Your task to perform on an android device: turn vacation reply on in the gmail app Image 0: 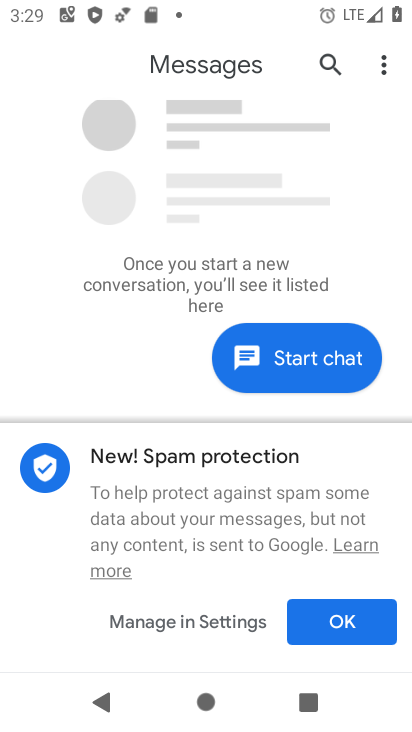
Step 0: press home button
Your task to perform on an android device: turn vacation reply on in the gmail app Image 1: 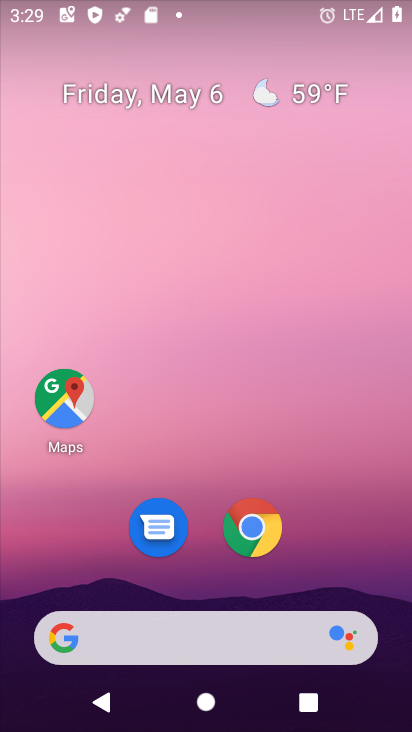
Step 1: drag from (345, 552) to (289, 73)
Your task to perform on an android device: turn vacation reply on in the gmail app Image 2: 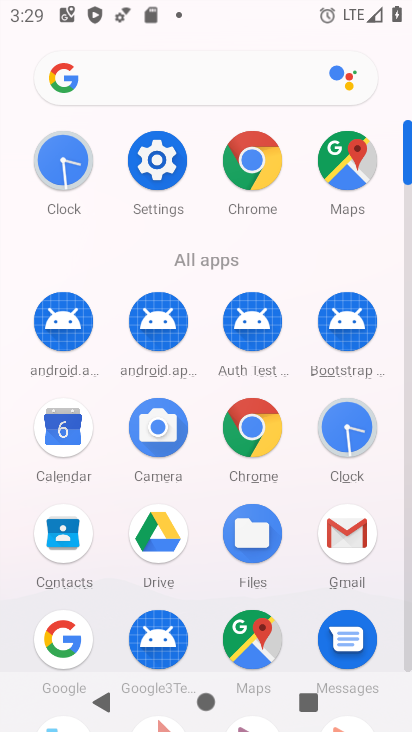
Step 2: click (365, 525)
Your task to perform on an android device: turn vacation reply on in the gmail app Image 3: 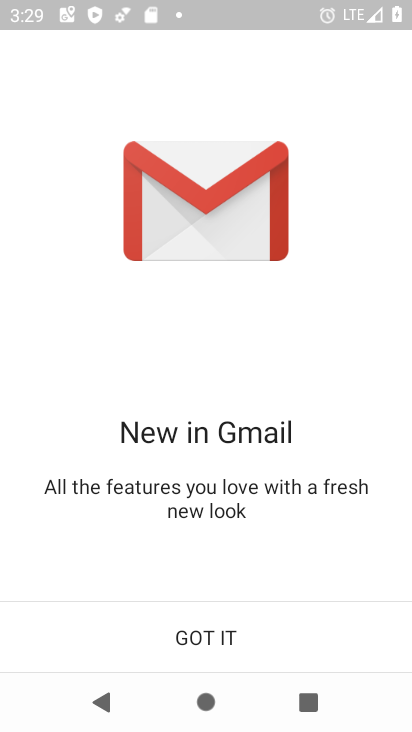
Step 3: click (189, 639)
Your task to perform on an android device: turn vacation reply on in the gmail app Image 4: 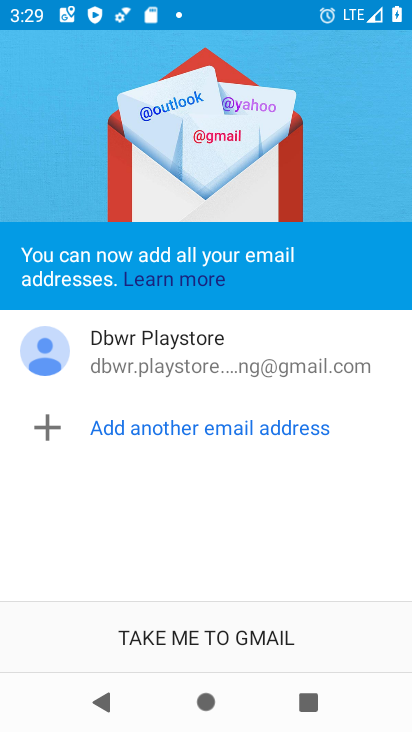
Step 4: click (183, 632)
Your task to perform on an android device: turn vacation reply on in the gmail app Image 5: 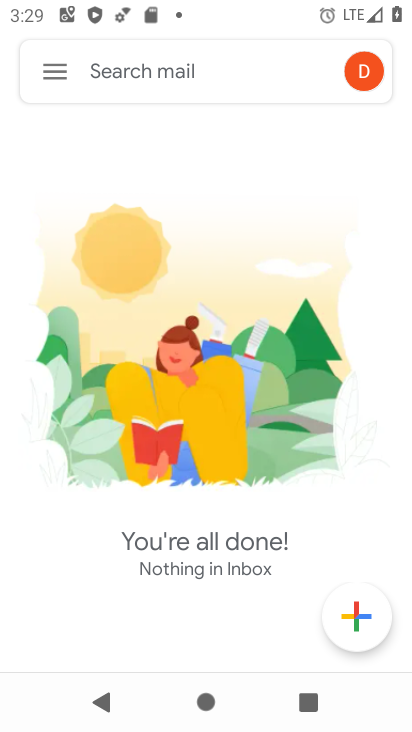
Step 5: click (62, 64)
Your task to perform on an android device: turn vacation reply on in the gmail app Image 6: 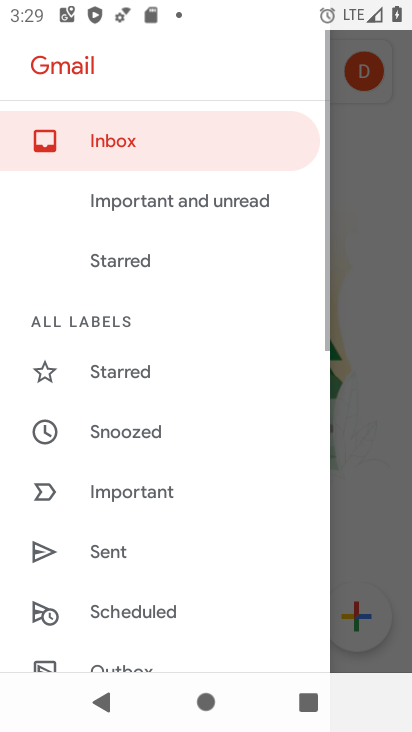
Step 6: drag from (195, 358) to (255, 17)
Your task to perform on an android device: turn vacation reply on in the gmail app Image 7: 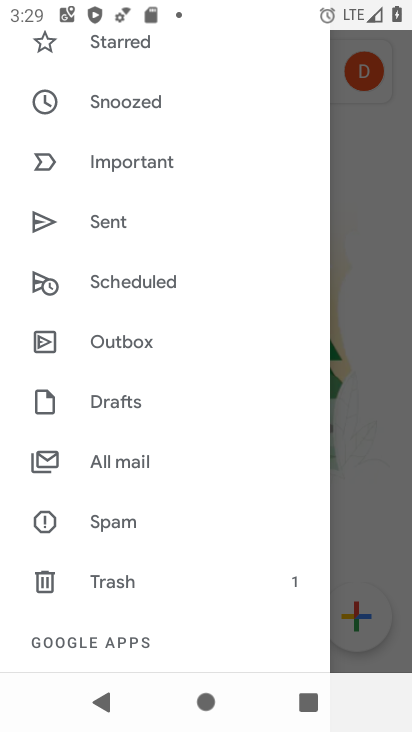
Step 7: drag from (148, 567) to (234, 232)
Your task to perform on an android device: turn vacation reply on in the gmail app Image 8: 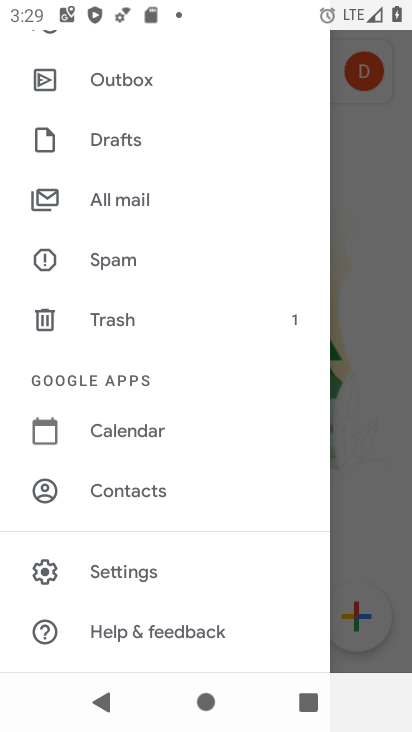
Step 8: click (133, 572)
Your task to perform on an android device: turn vacation reply on in the gmail app Image 9: 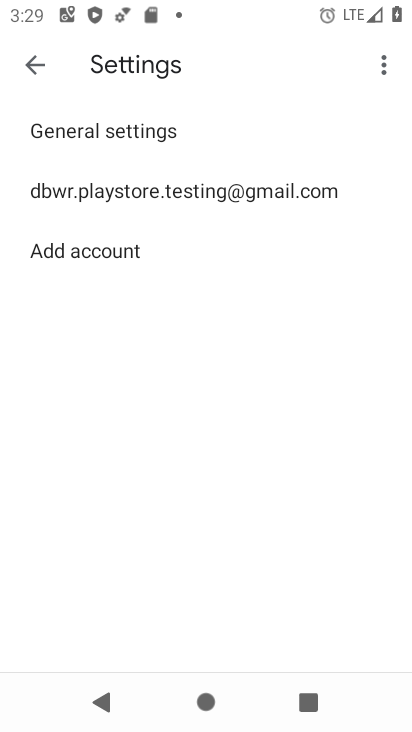
Step 9: click (162, 179)
Your task to perform on an android device: turn vacation reply on in the gmail app Image 10: 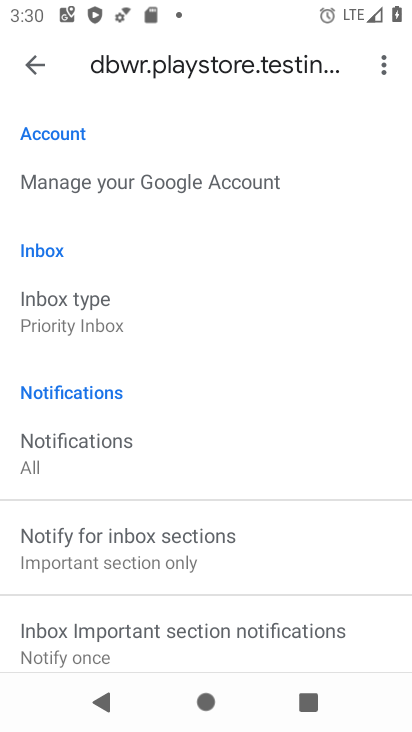
Step 10: drag from (175, 595) to (228, 97)
Your task to perform on an android device: turn vacation reply on in the gmail app Image 11: 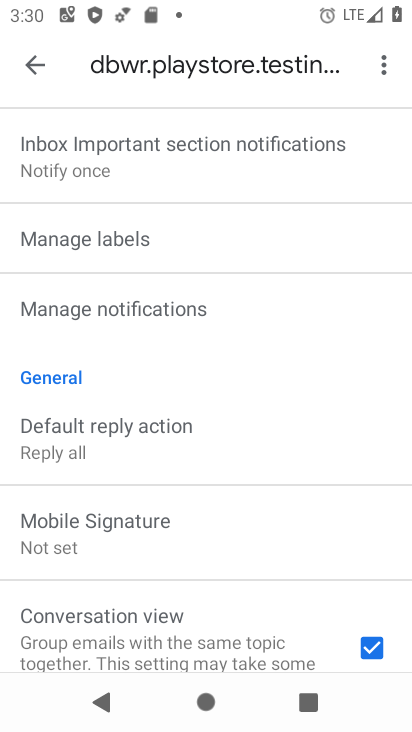
Step 11: drag from (195, 579) to (256, 131)
Your task to perform on an android device: turn vacation reply on in the gmail app Image 12: 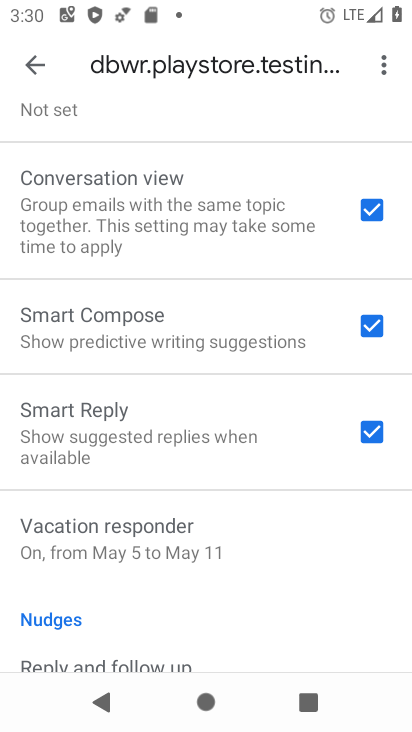
Step 12: drag from (183, 539) to (198, 177)
Your task to perform on an android device: turn vacation reply on in the gmail app Image 13: 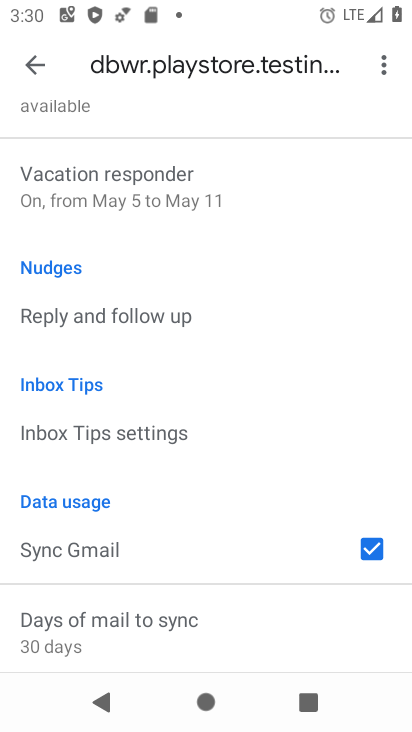
Step 13: drag from (205, 219) to (206, 468)
Your task to perform on an android device: turn vacation reply on in the gmail app Image 14: 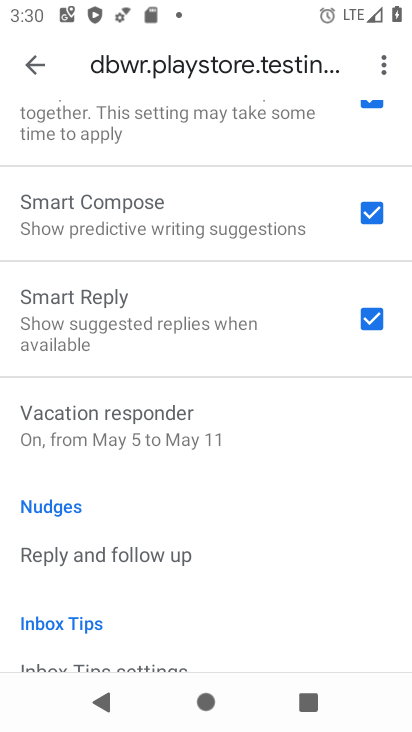
Step 14: click (171, 413)
Your task to perform on an android device: turn vacation reply on in the gmail app Image 15: 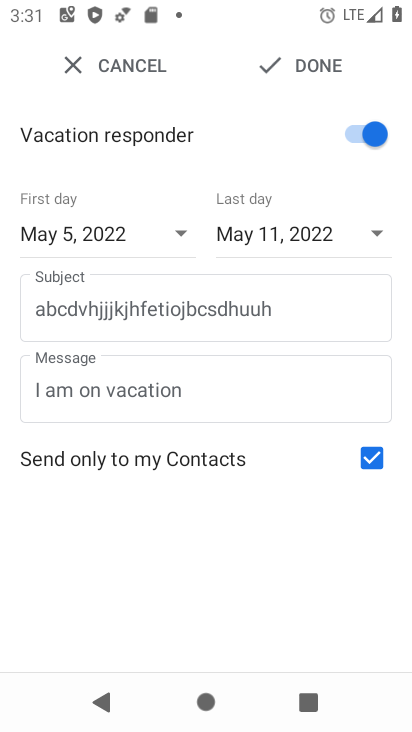
Step 15: task complete